Your task to perform on an android device: Go to CNN.com Image 0: 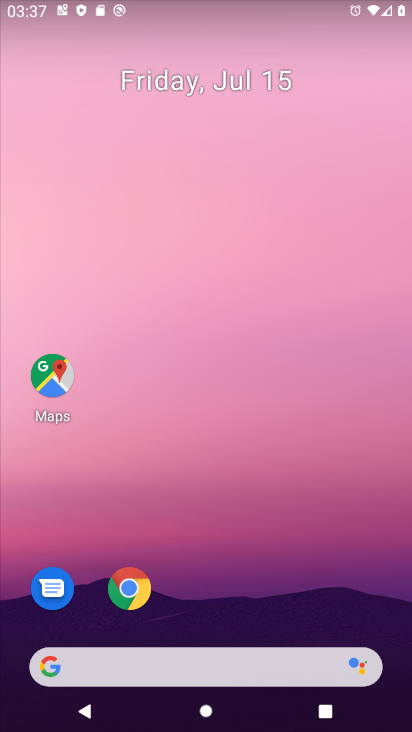
Step 0: click (128, 588)
Your task to perform on an android device: Go to CNN.com Image 1: 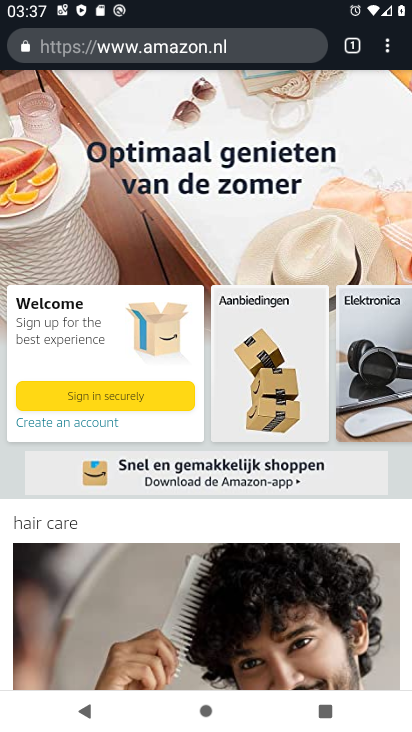
Step 1: click (256, 47)
Your task to perform on an android device: Go to CNN.com Image 2: 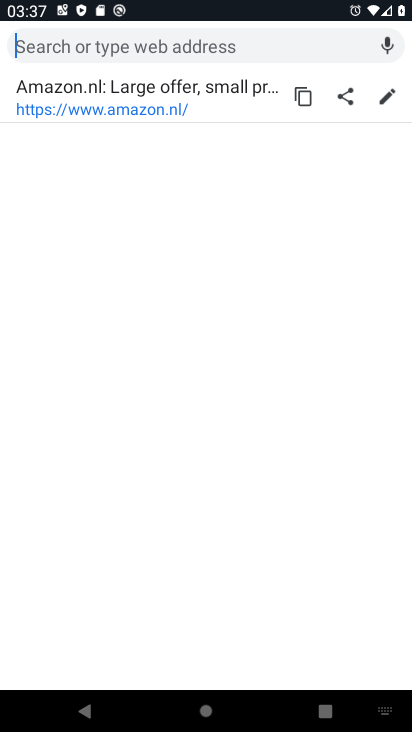
Step 2: type "CNN.com"
Your task to perform on an android device: Go to CNN.com Image 3: 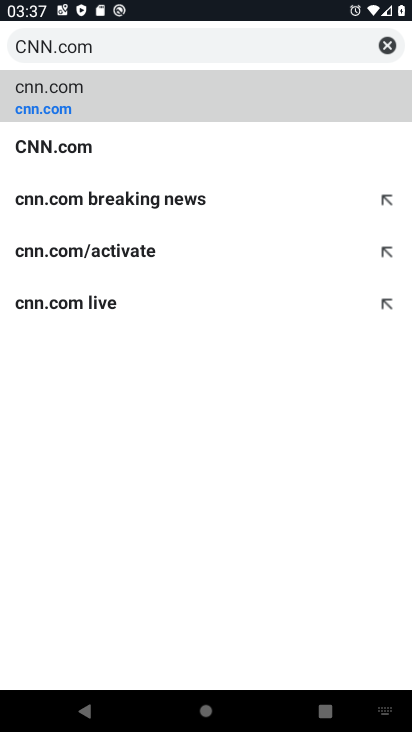
Step 3: click (95, 151)
Your task to perform on an android device: Go to CNN.com Image 4: 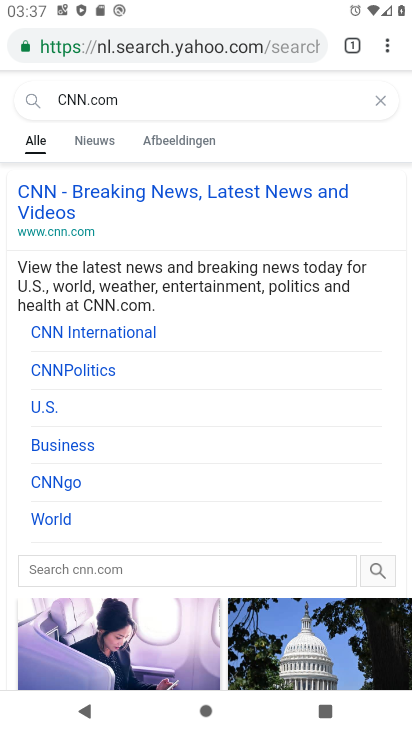
Step 4: click (129, 198)
Your task to perform on an android device: Go to CNN.com Image 5: 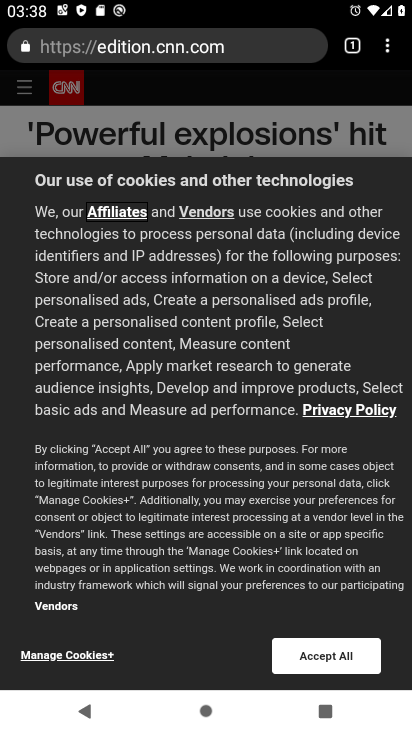
Step 5: task complete